Your task to perform on an android device: change keyboard looks Image 0: 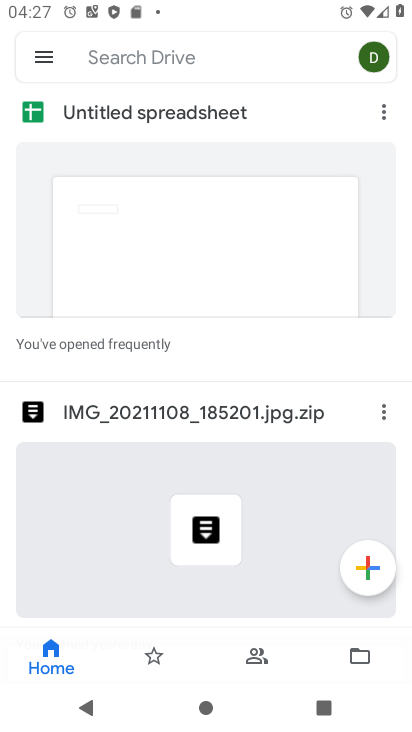
Step 0: press home button
Your task to perform on an android device: change keyboard looks Image 1: 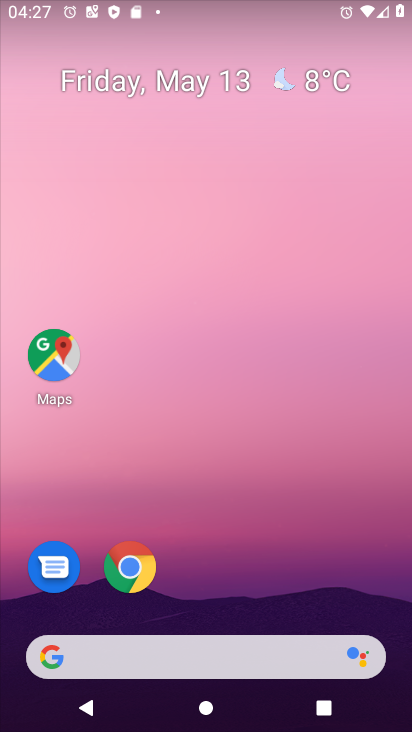
Step 1: drag from (307, 606) to (309, 13)
Your task to perform on an android device: change keyboard looks Image 2: 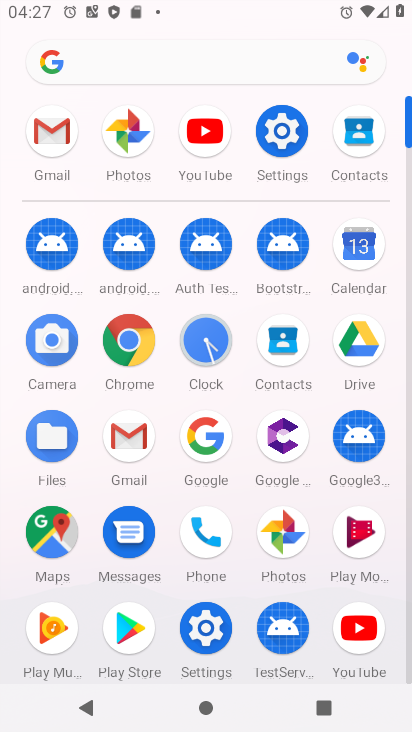
Step 2: click (208, 628)
Your task to perform on an android device: change keyboard looks Image 3: 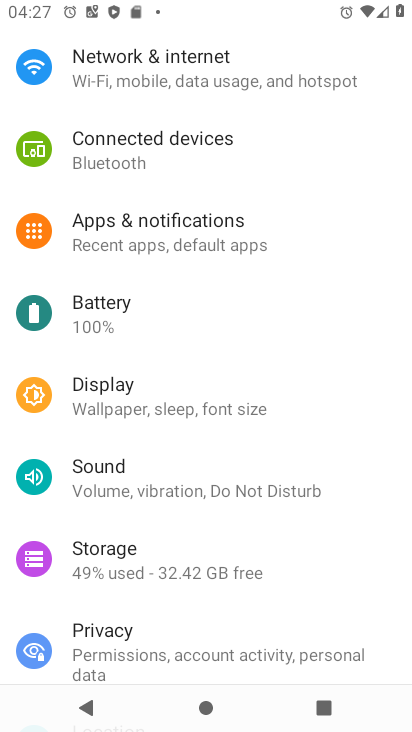
Step 3: drag from (314, 439) to (297, 40)
Your task to perform on an android device: change keyboard looks Image 4: 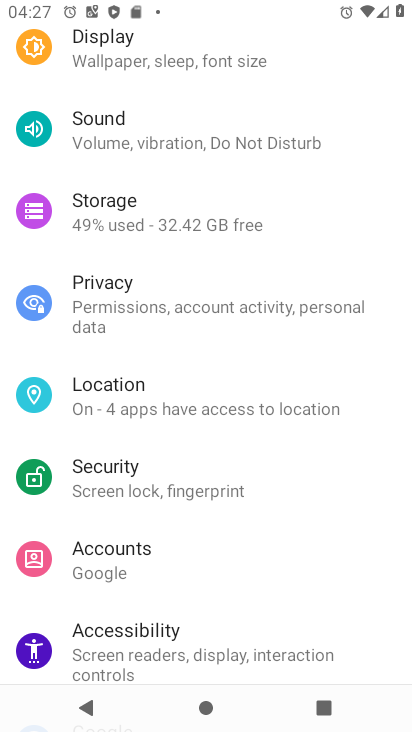
Step 4: drag from (283, 590) to (284, 209)
Your task to perform on an android device: change keyboard looks Image 5: 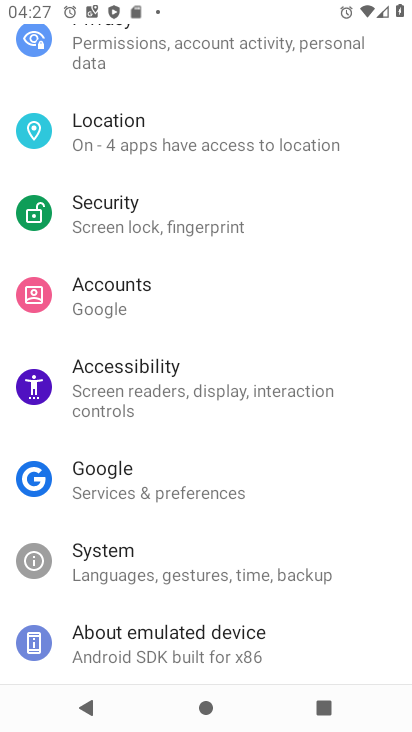
Step 5: click (97, 563)
Your task to perform on an android device: change keyboard looks Image 6: 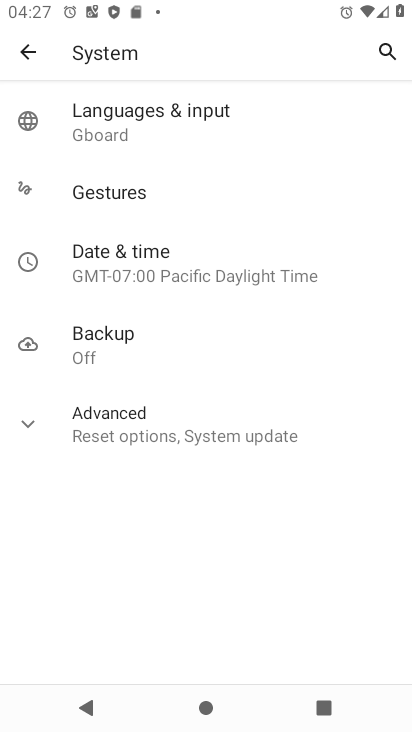
Step 6: click (111, 130)
Your task to perform on an android device: change keyboard looks Image 7: 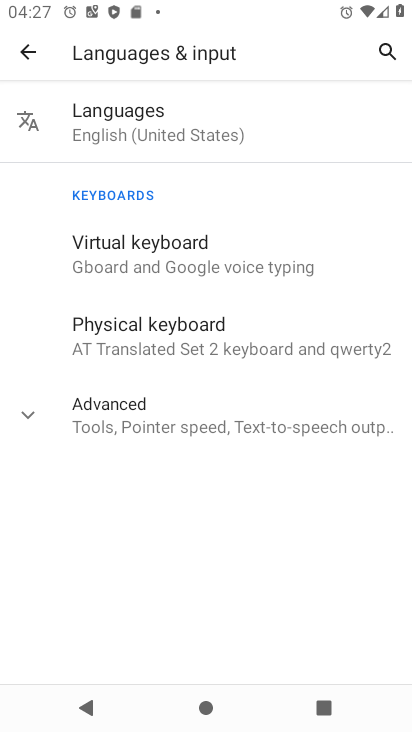
Step 7: click (100, 244)
Your task to perform on an android device: change keyboard looks Image 8: 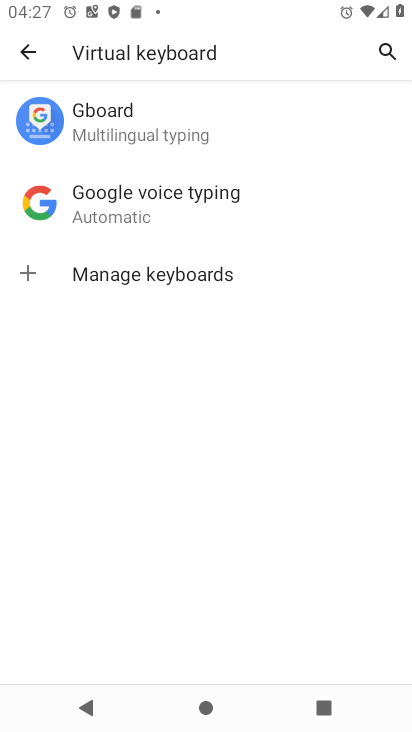
Step 8: click (100, 129)
Your task to perform on an android device: change keyboard looks Image 9: 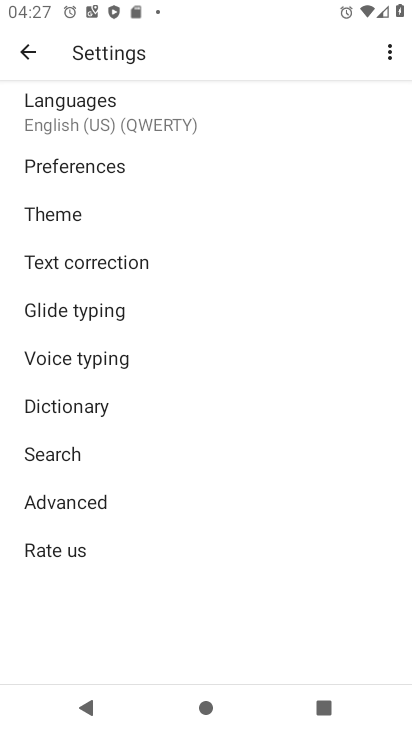
Step 9: click (46, 211)
Your task to perform on an android device: change keyboard looks Image 10: 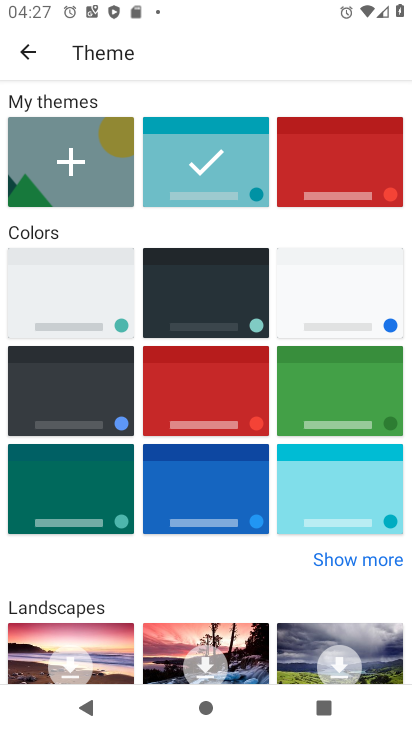
Step 10: click (205, 308)
Your task to perform on an android device: change keyboard looks Image 11: 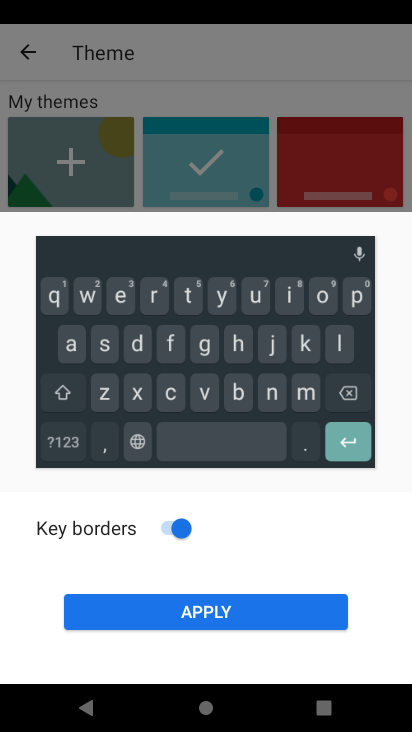
Step 11: click (209, 626)
Your task to perform on an android device: change keyboard looks Image 12: 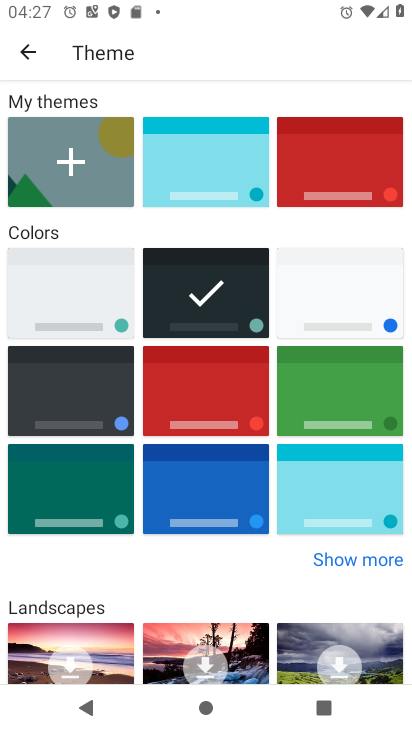
Step 12: task complete